Your task to perform on an android device: Search for a nightstand on IKEA. Image 0: 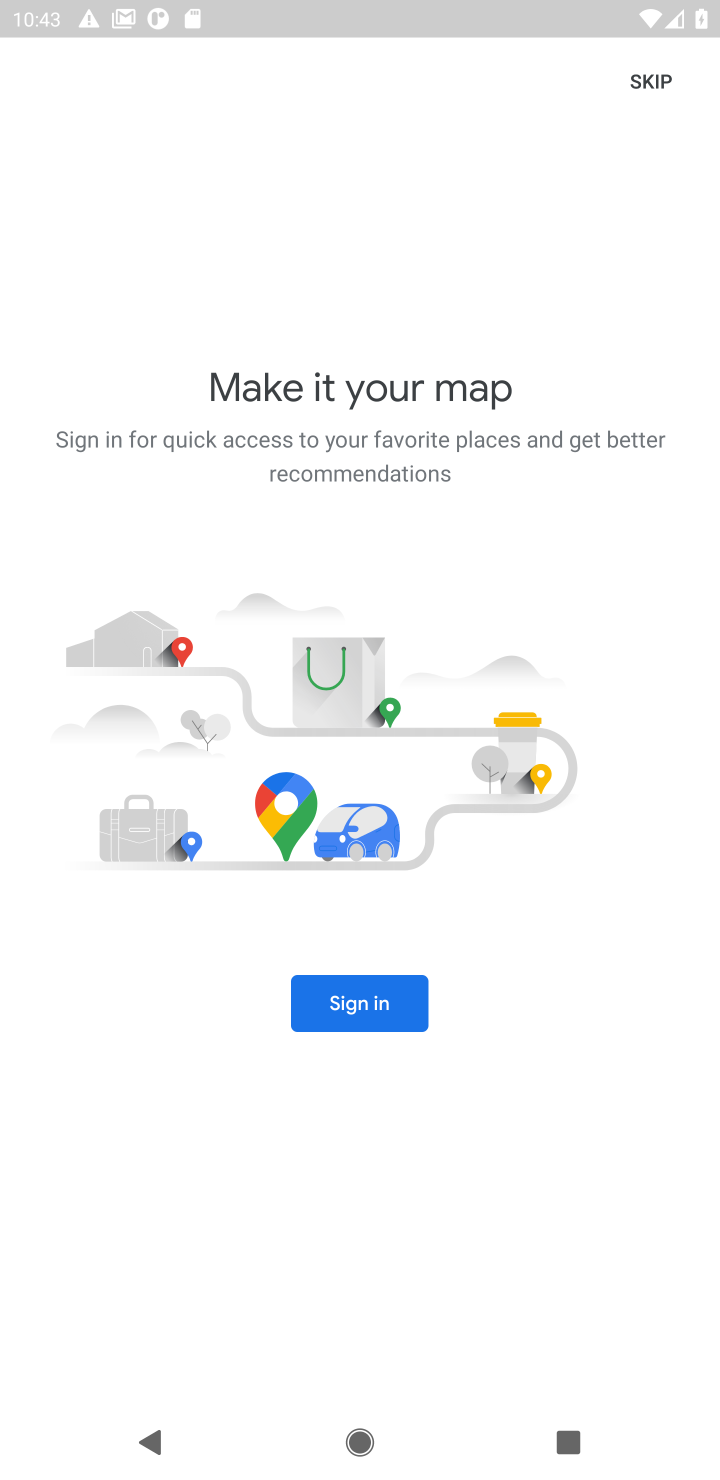
Step 0: press home button
Your task to perform on an android device: Search for a nightstand on IKEA. Image 1: 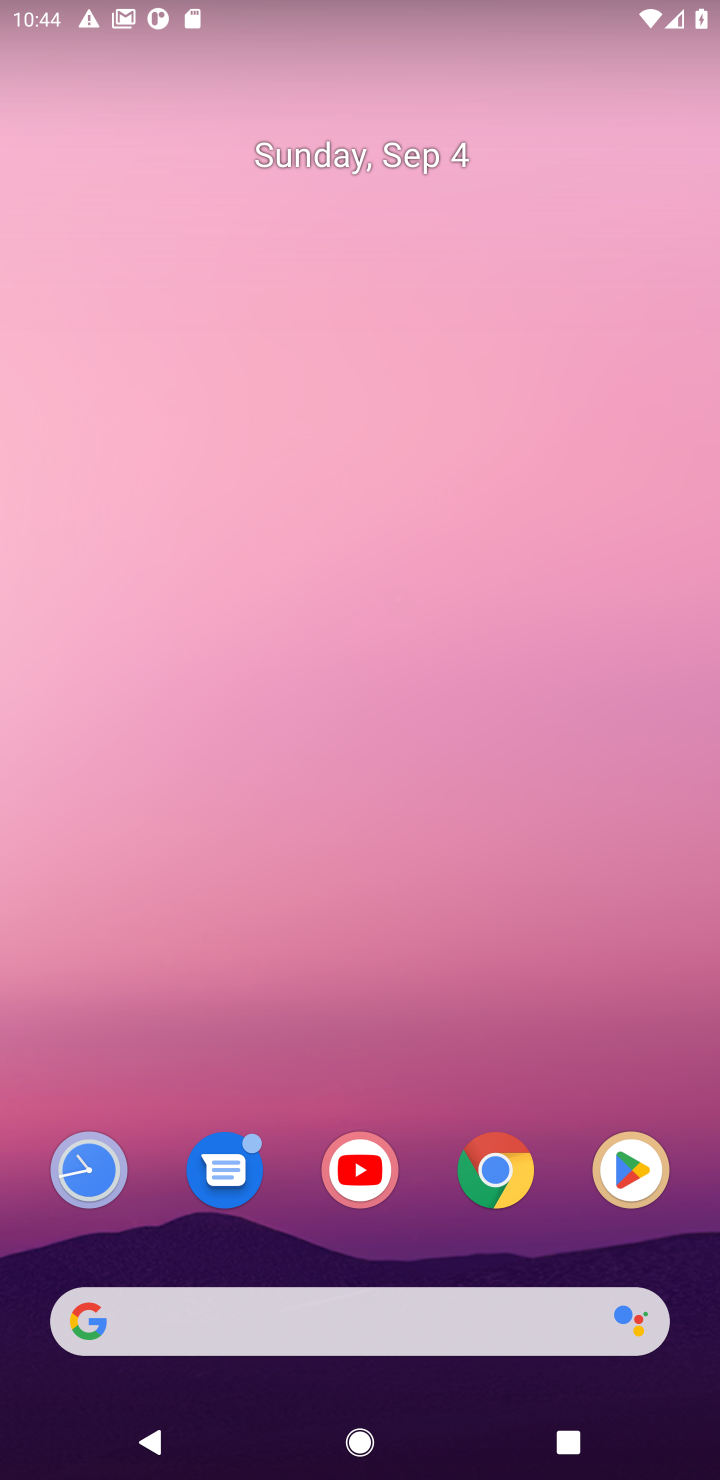
Step 1: drag from (352, 1060) to (200, 131)
Your task to perform on an android device: Search for a nightstand on IKEA. Image 2: 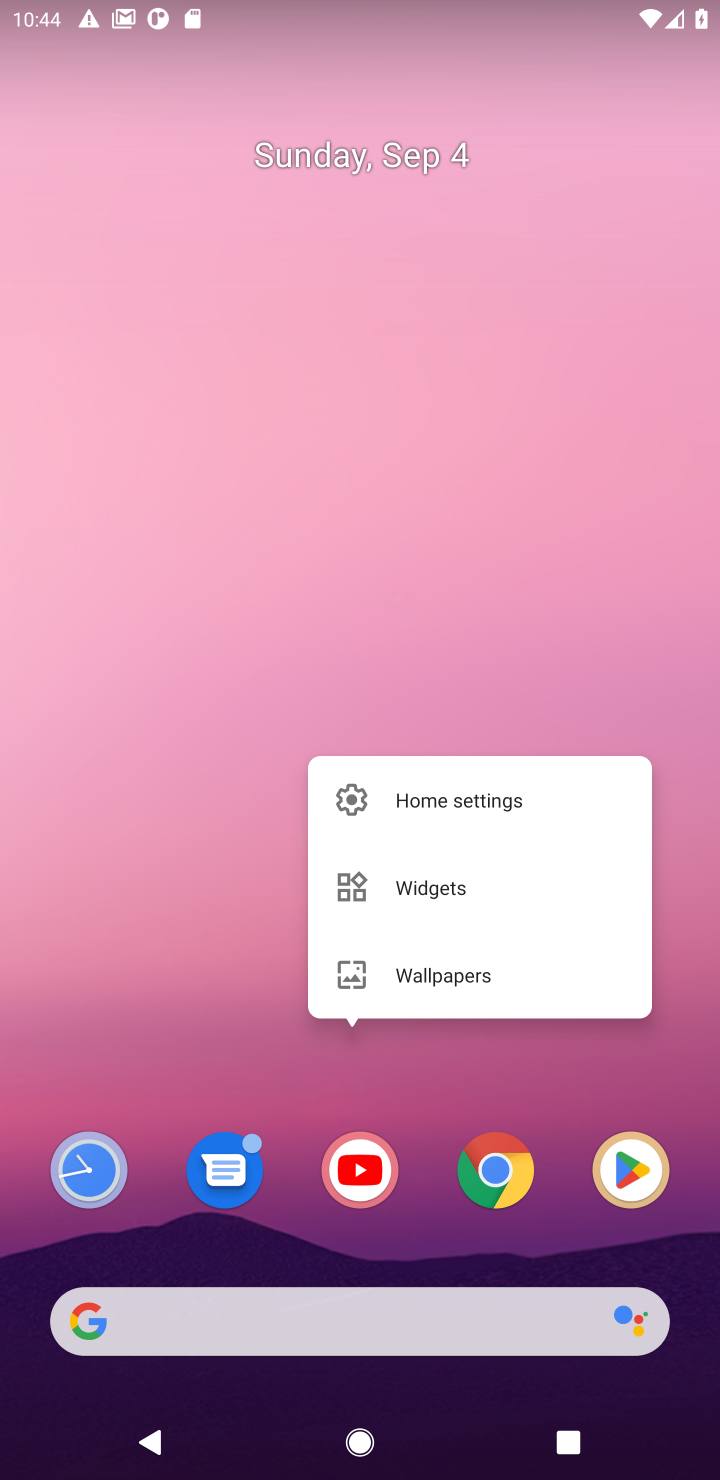
Step 2: click (366, 1097)
Your task to perform on an android device: Search for a nightstand on IKEA. Image 3: 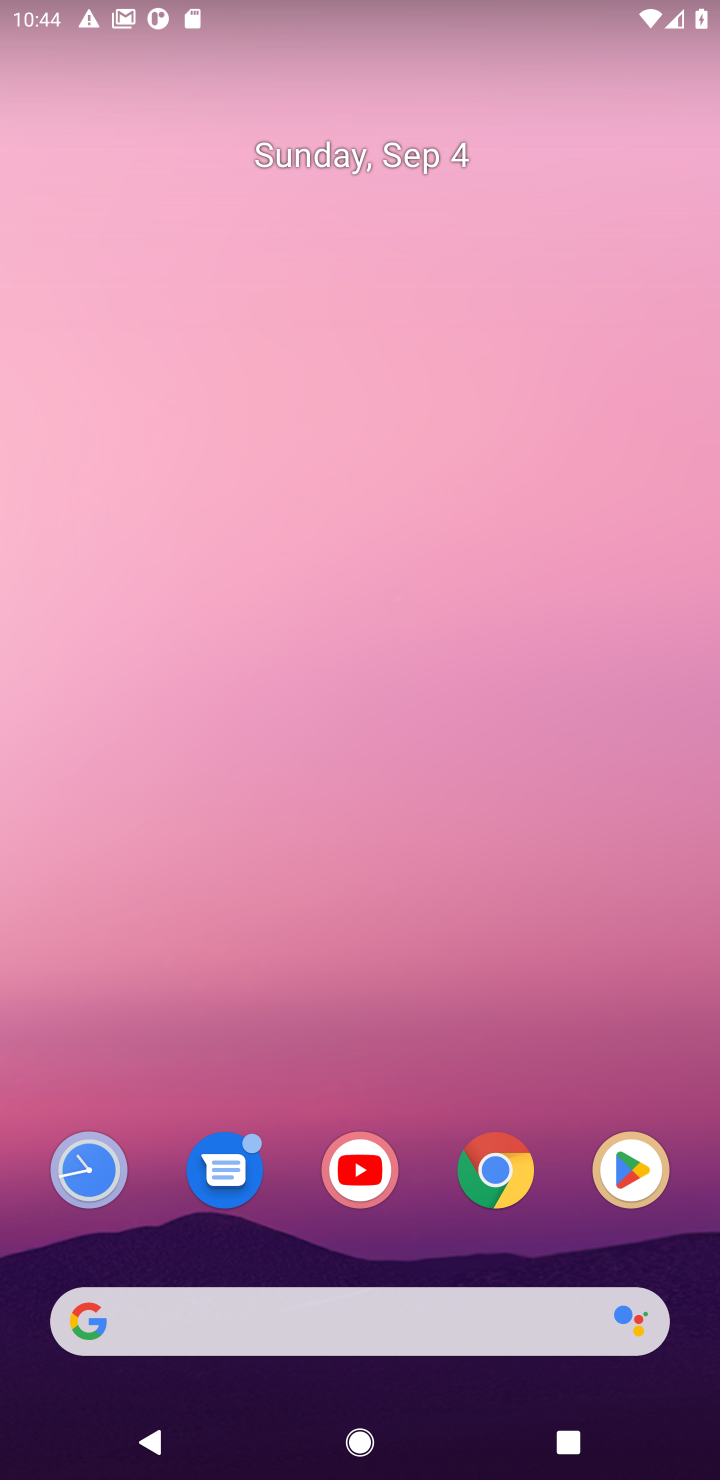
Step 3: click (497, 1178)
Your task to perform on an android device: Search for a nightstand on IKEA. Image 4: 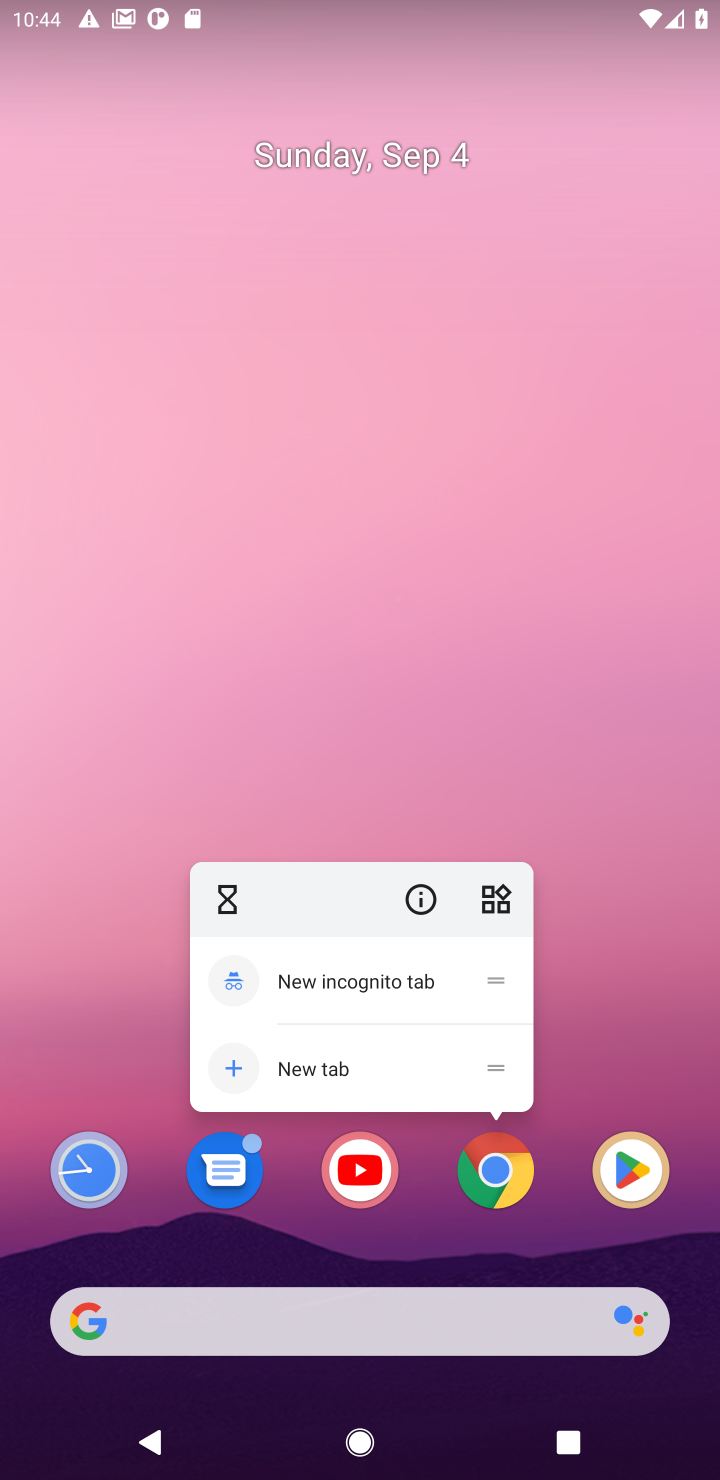
Step 4: click (531, 1136)
Your task to perform on an android device: Search for a nightstand on IKEA. Image 5: 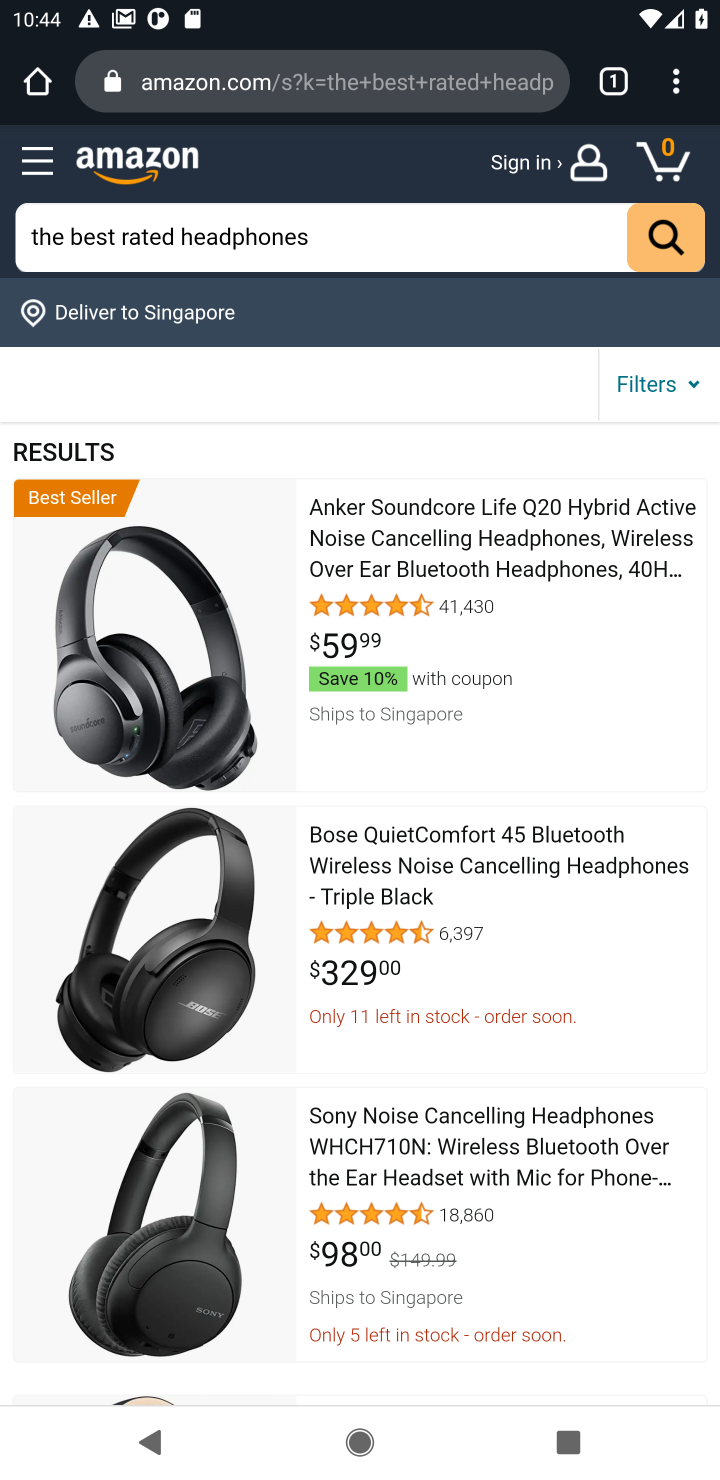
Step 5: click (419, 80)
Your task to perform on an android device: Search for a nightstand on IKEA. Image 6: 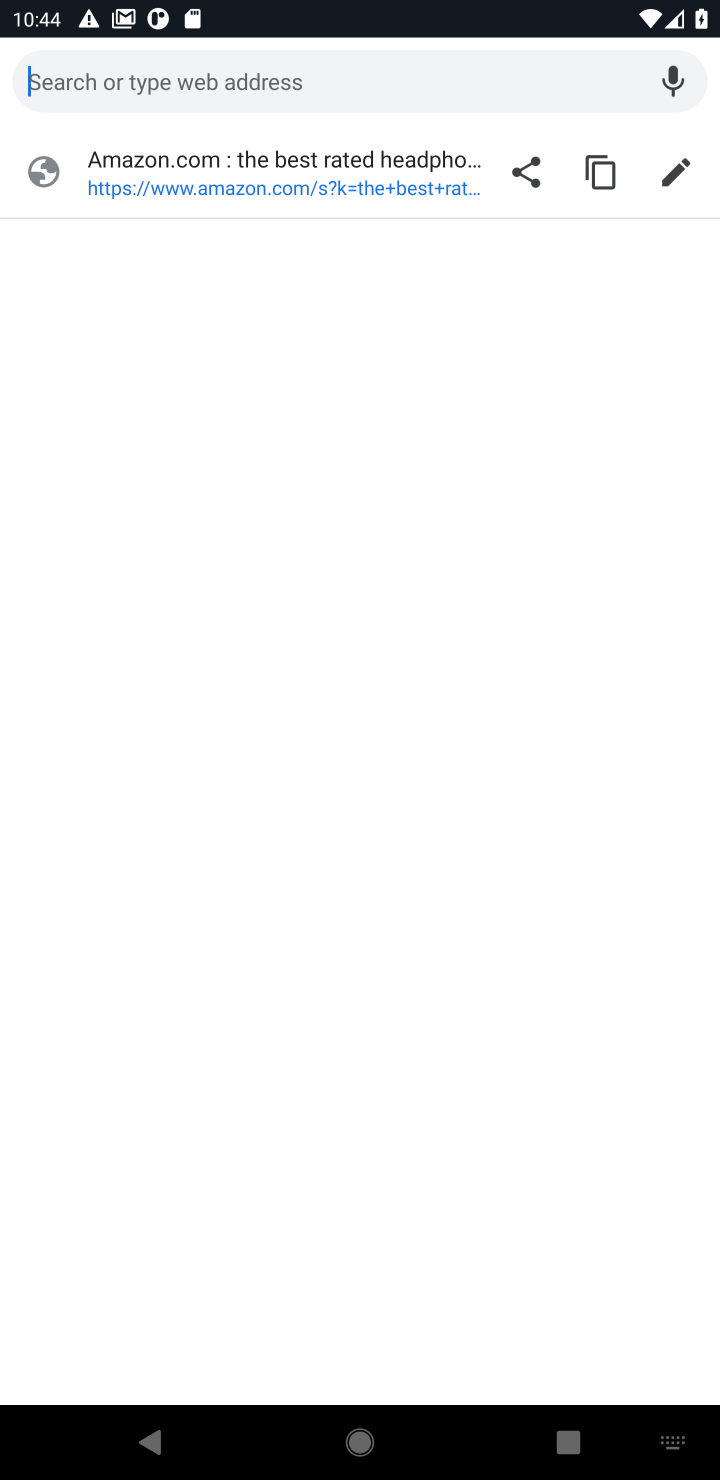
Step 6: type "IKEA."
Your task to perform on an android device: Search for a nightstand on IKEA. Image 7: 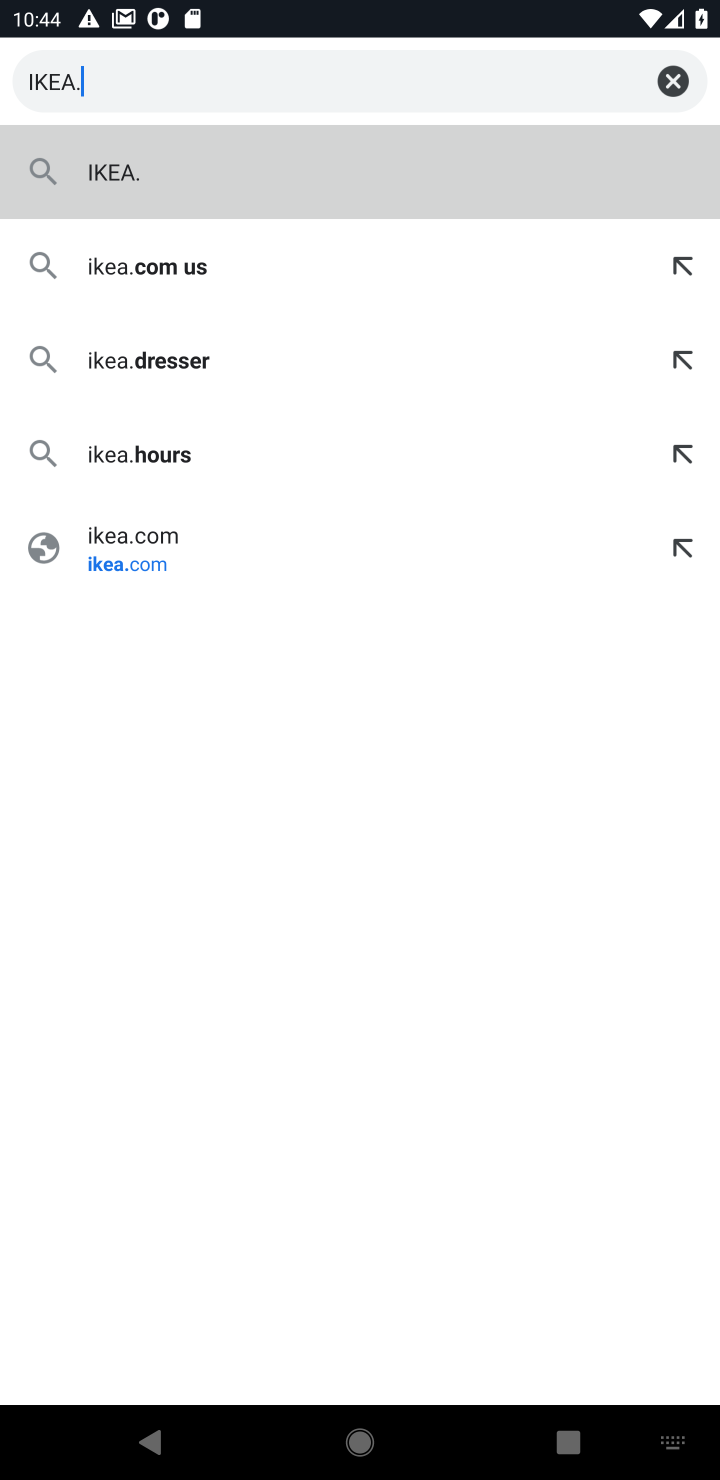
Step 7: click (153, 201)
Your task to perform on an android device: Search for a nightstand on IKEA. Image 8: 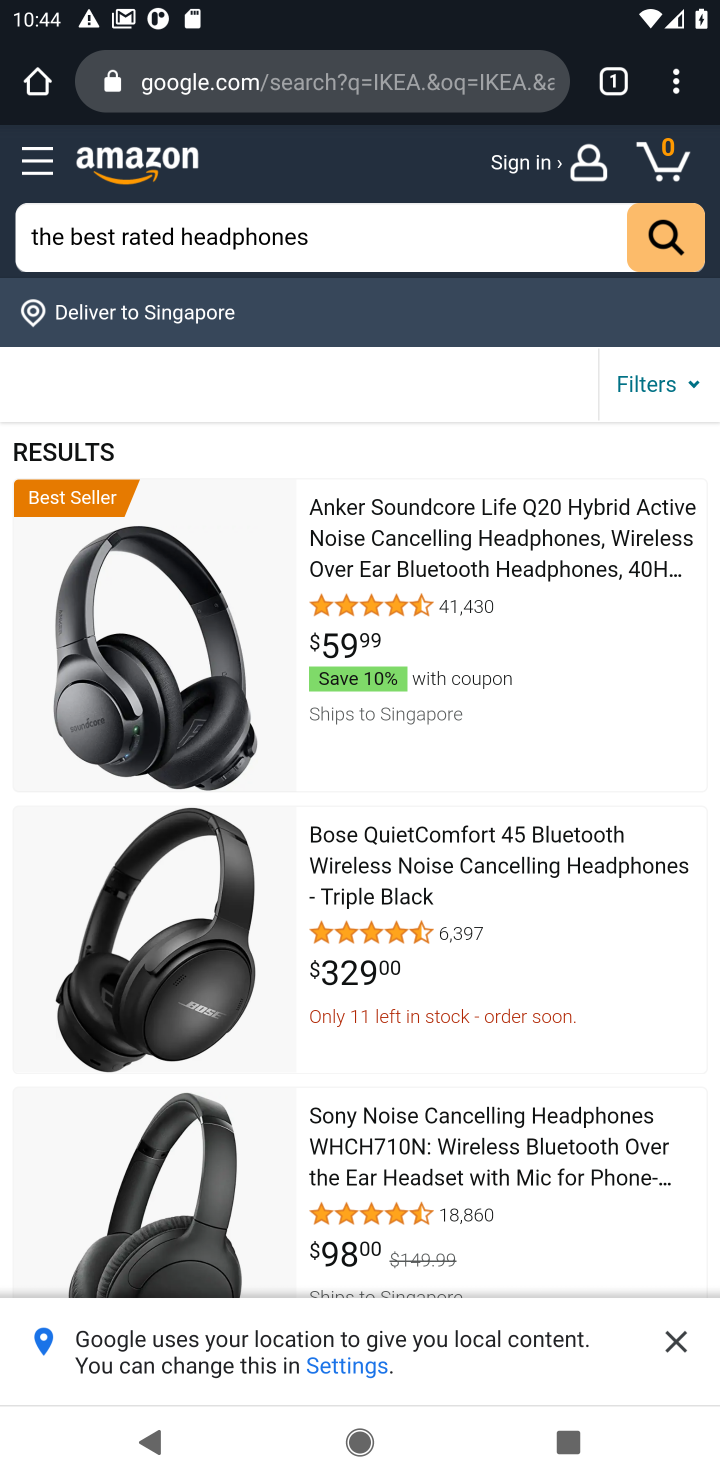
Step 8: click (268, 75)
Your task to perform on an android device: Search for a nightstand on IKEA. Image 9: 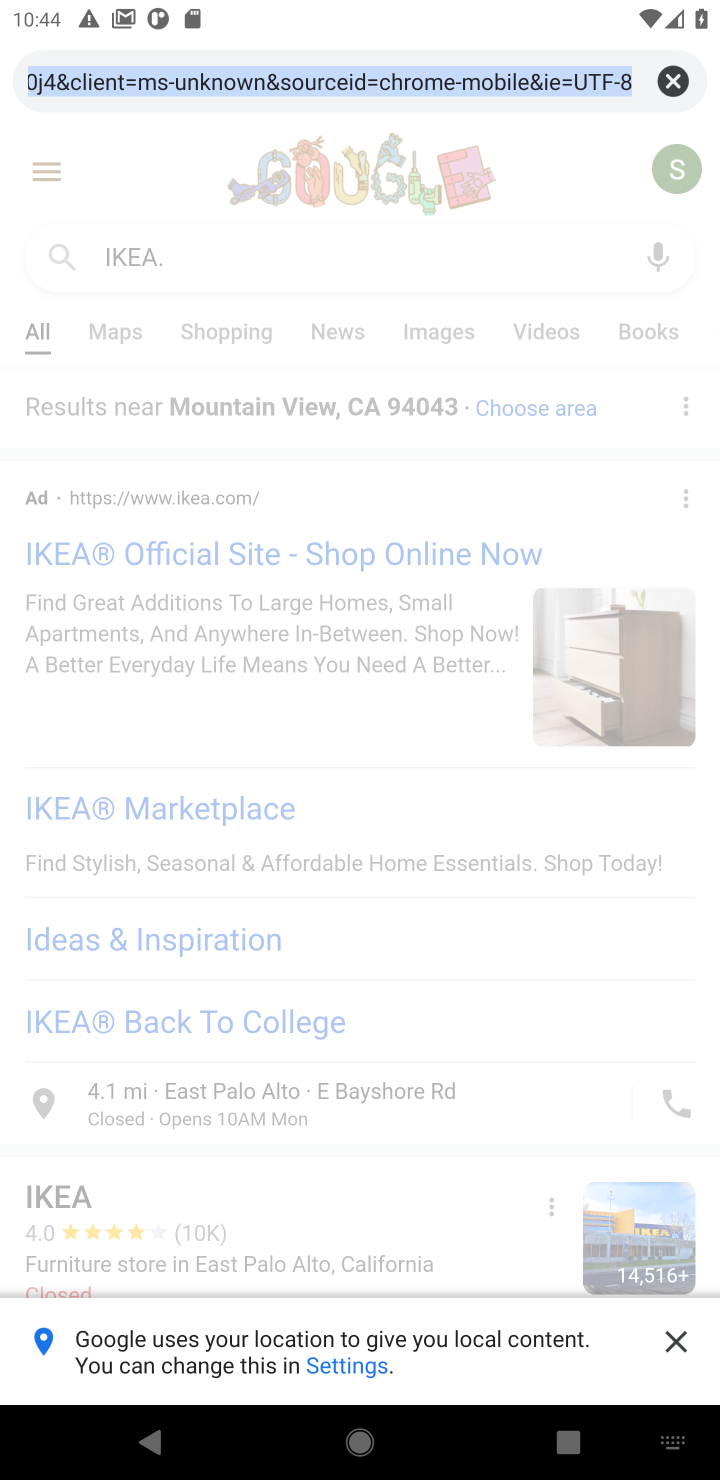
Step 9: click (105, 564)
Your task to perform on an android device: Search for a nightstand on IKEA. Image 10: 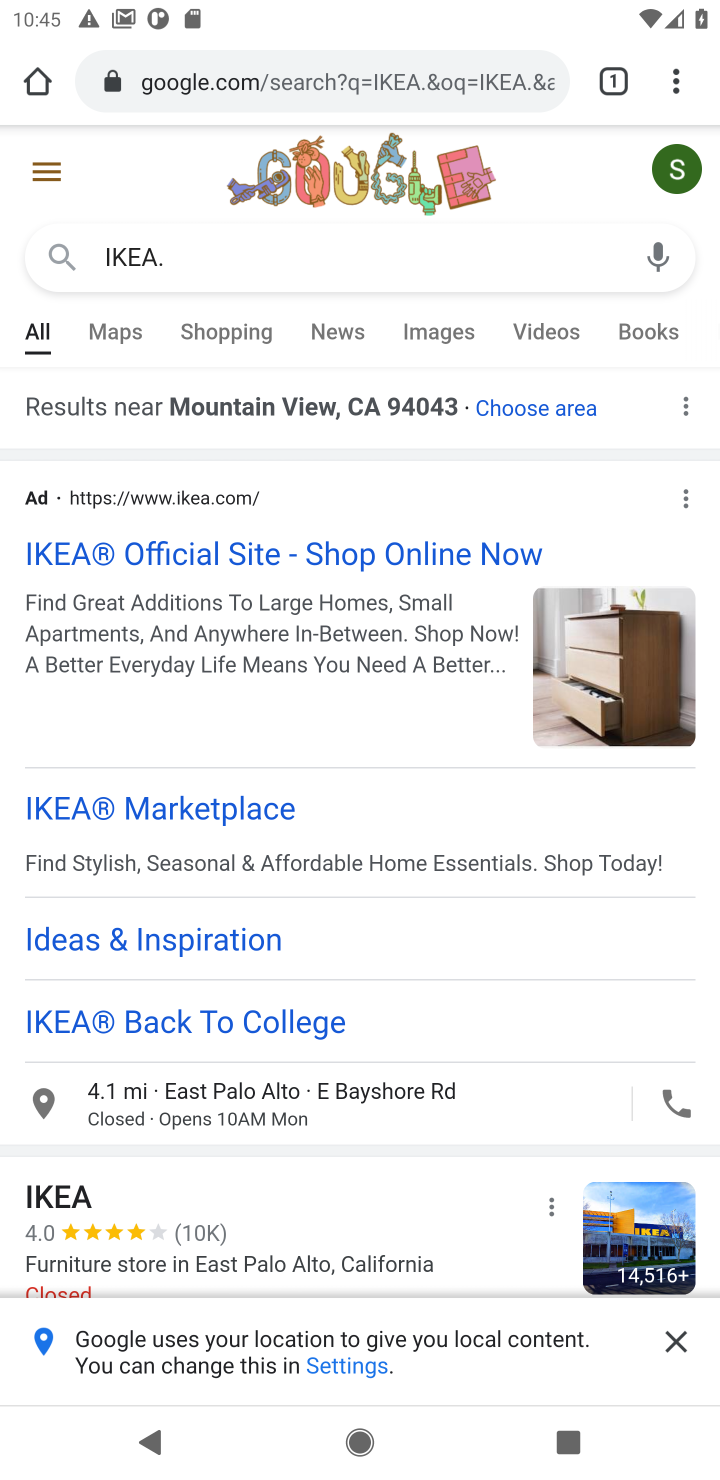
Step 10: click (107, 562)
Your task to perform on an android device: Search for a nightstand on IKEA. Image 11: 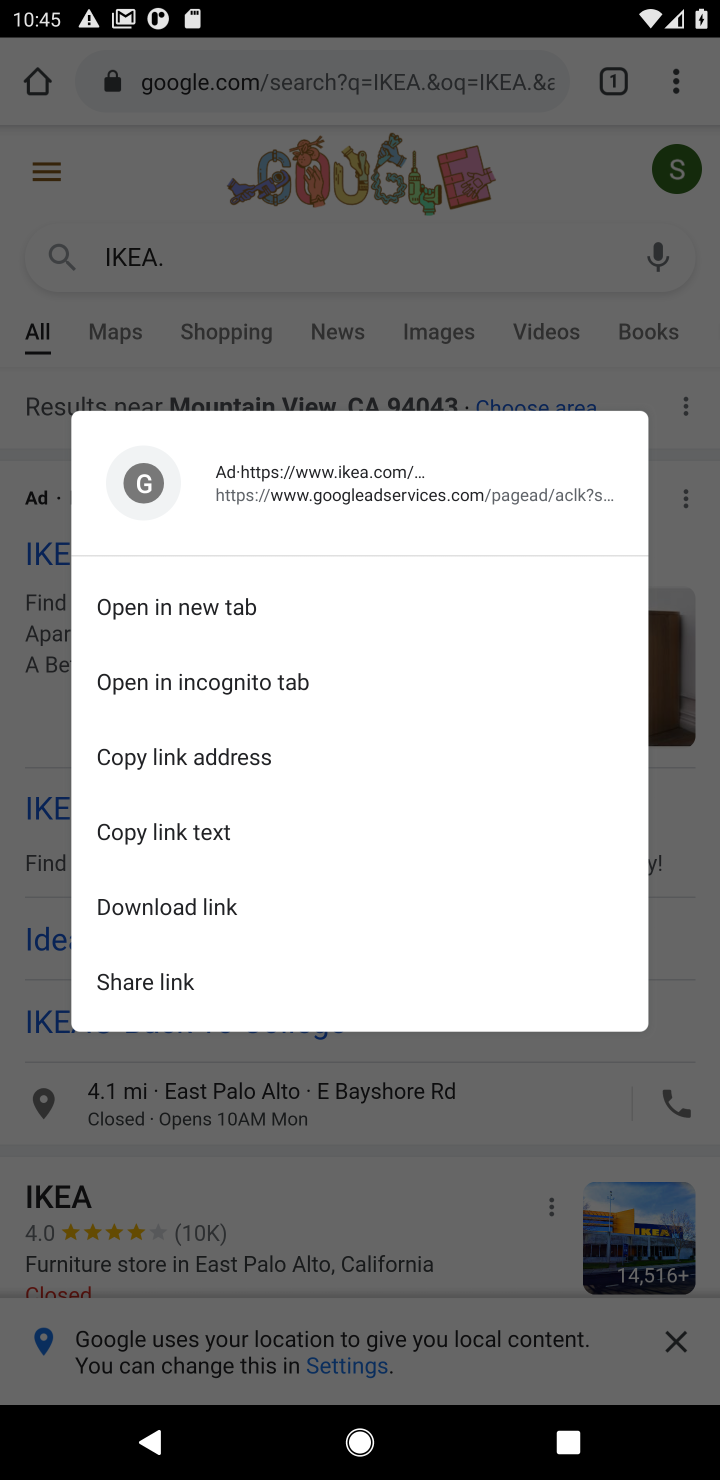
Step 11: click (208, 1126)
Your task to perform on an android device: Search for a nightstand on IKEA. Image 12: 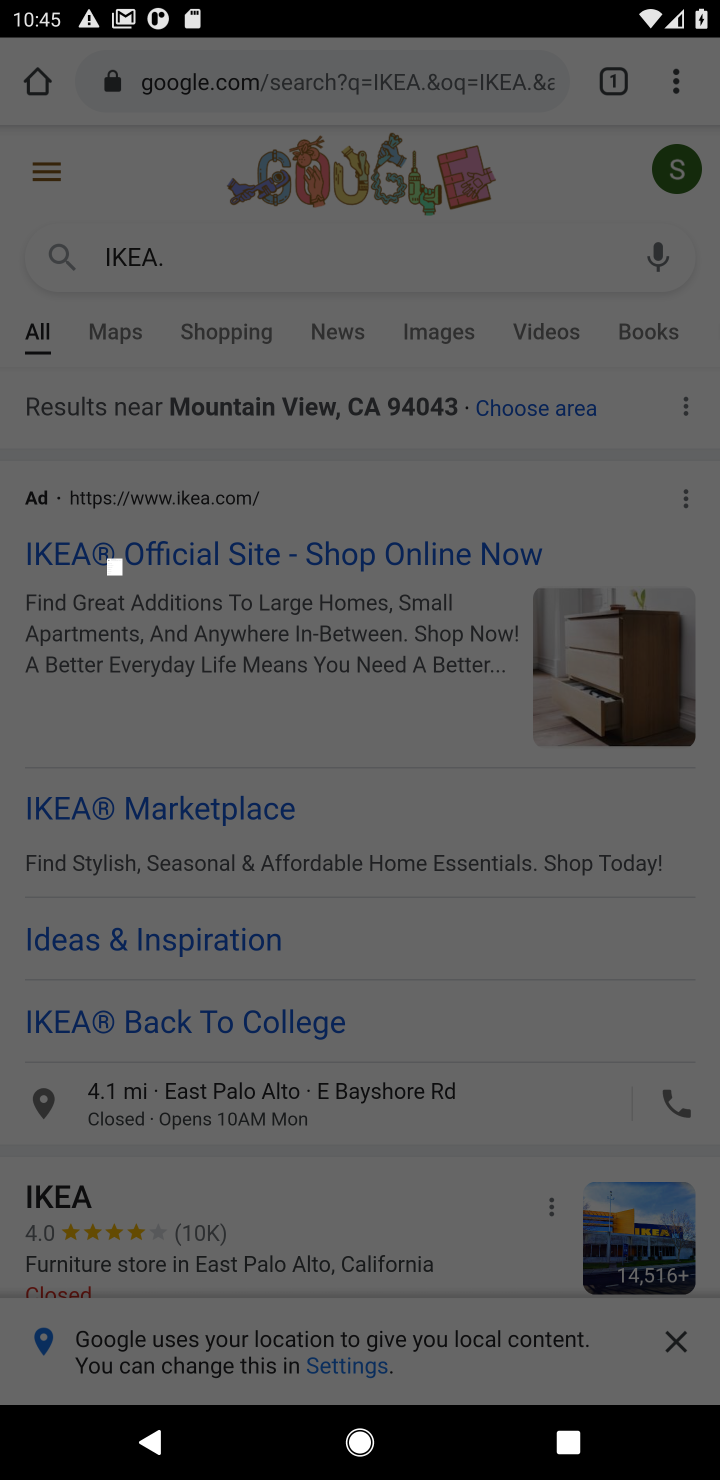
Step 12: click (172, 562)
Your task to perform on an android device: Search for a nightstand on IKEA. Image 13: 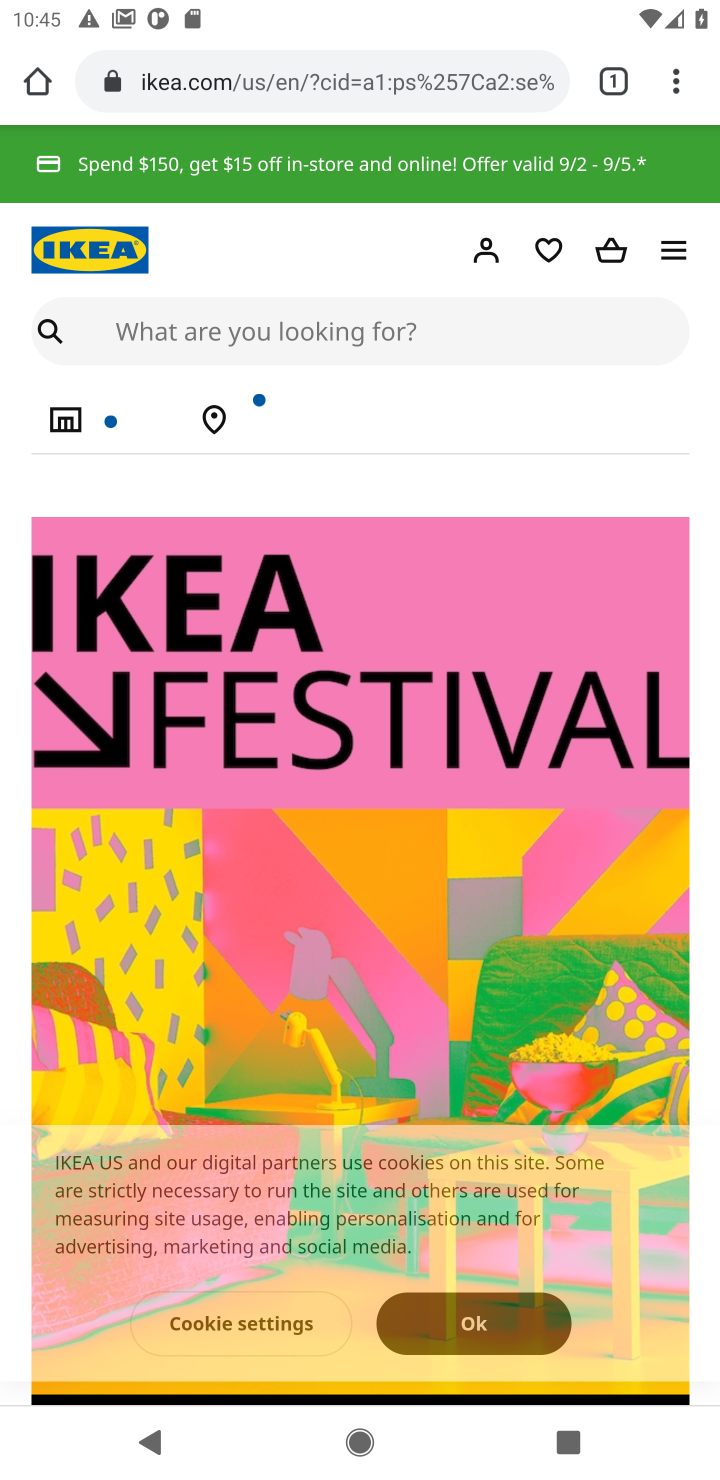
Step 13: click (196, 305)
Your task to perform on an android device: Search for a nightstand on IKEA. Image 14: 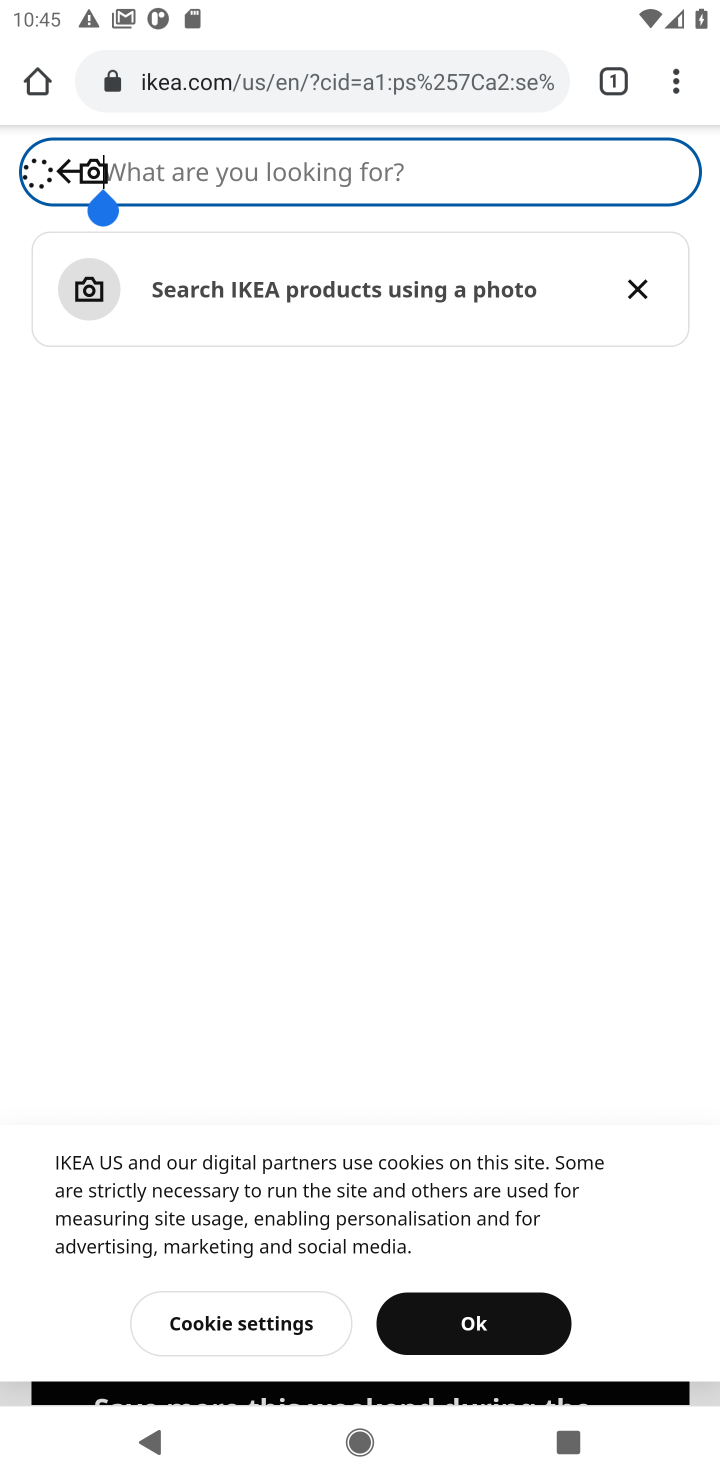
Step 14: type "nightstand"
Your task to perform on an android device: Search for a nightstand on IKEA. Image 15: 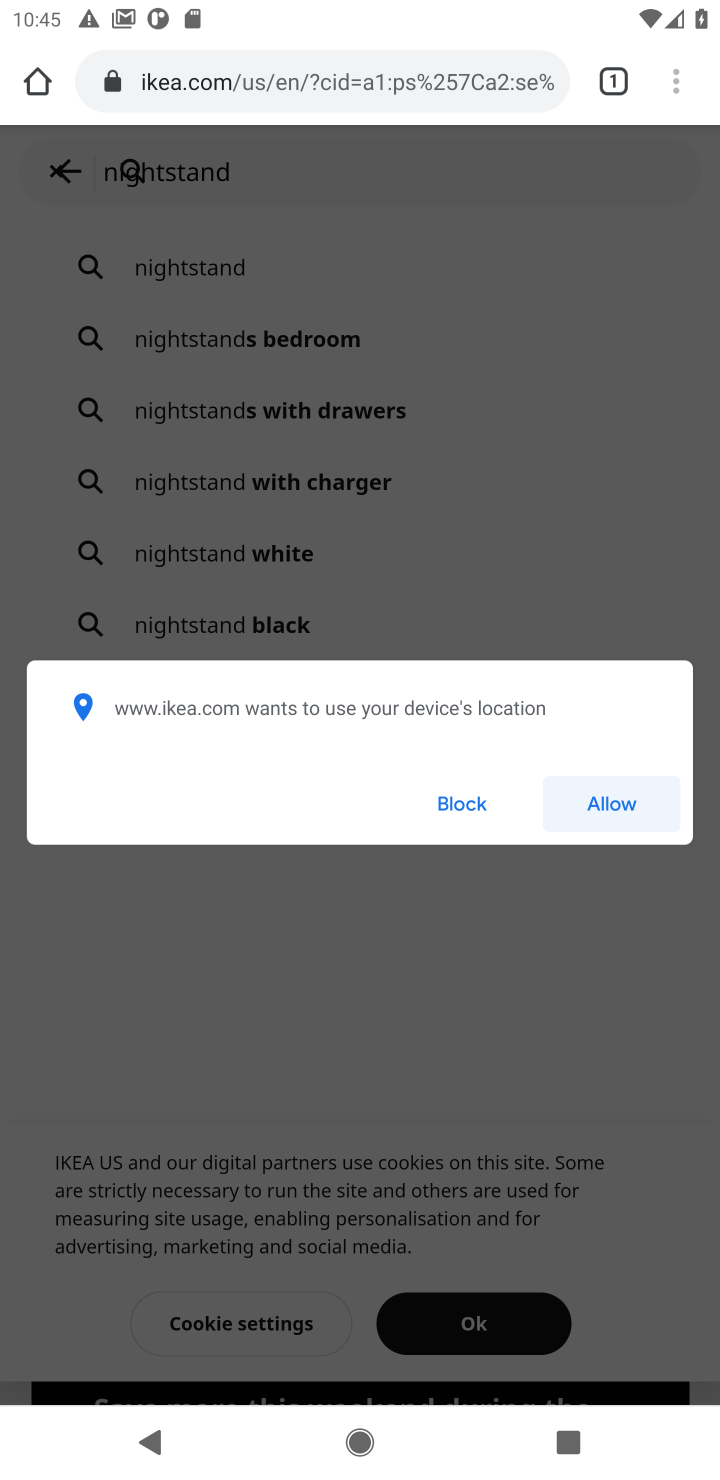
Step 15: click (447, 815)
Your task to perform on an android device: Search for a nightstand on IKEA. Image 16: 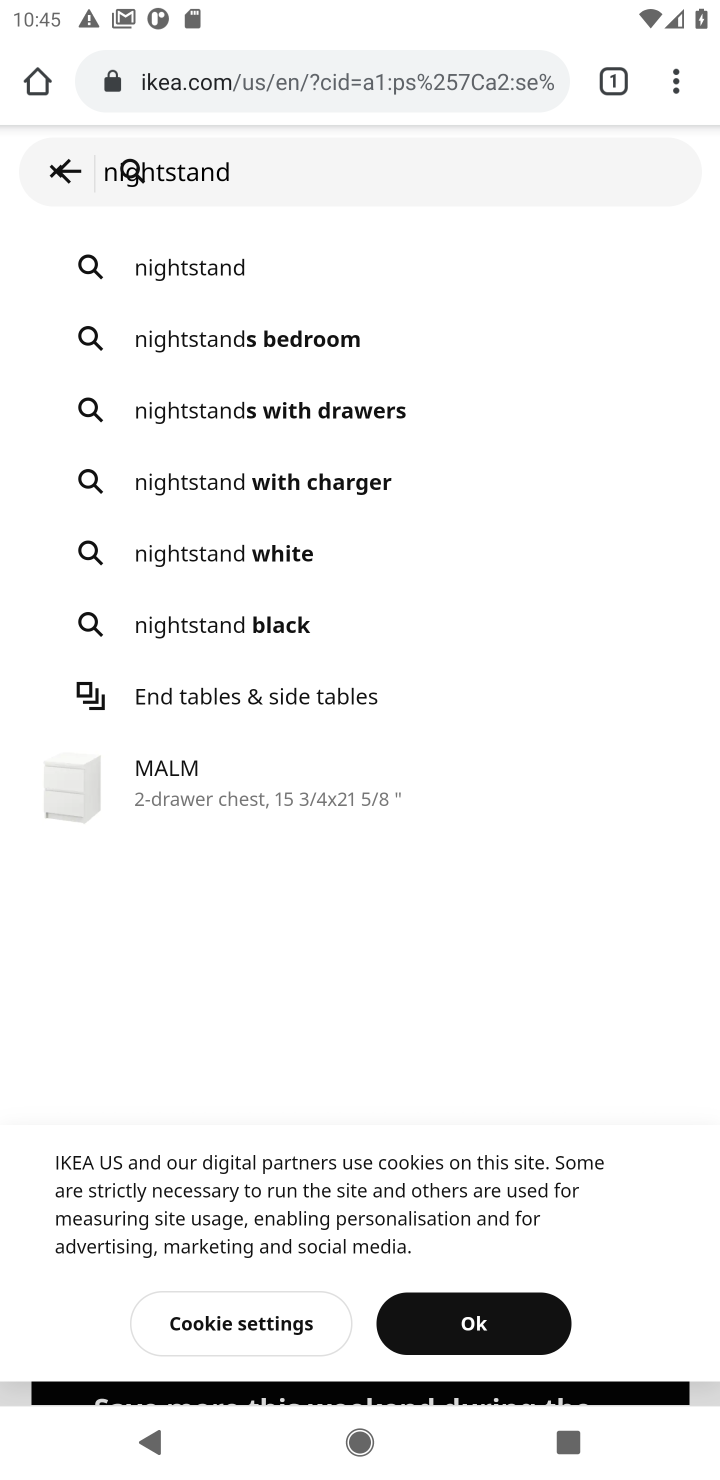
Step 16: click (222, 288)
Your task to perform on an android device: Search for a nightstand on IKEA. Image 17: 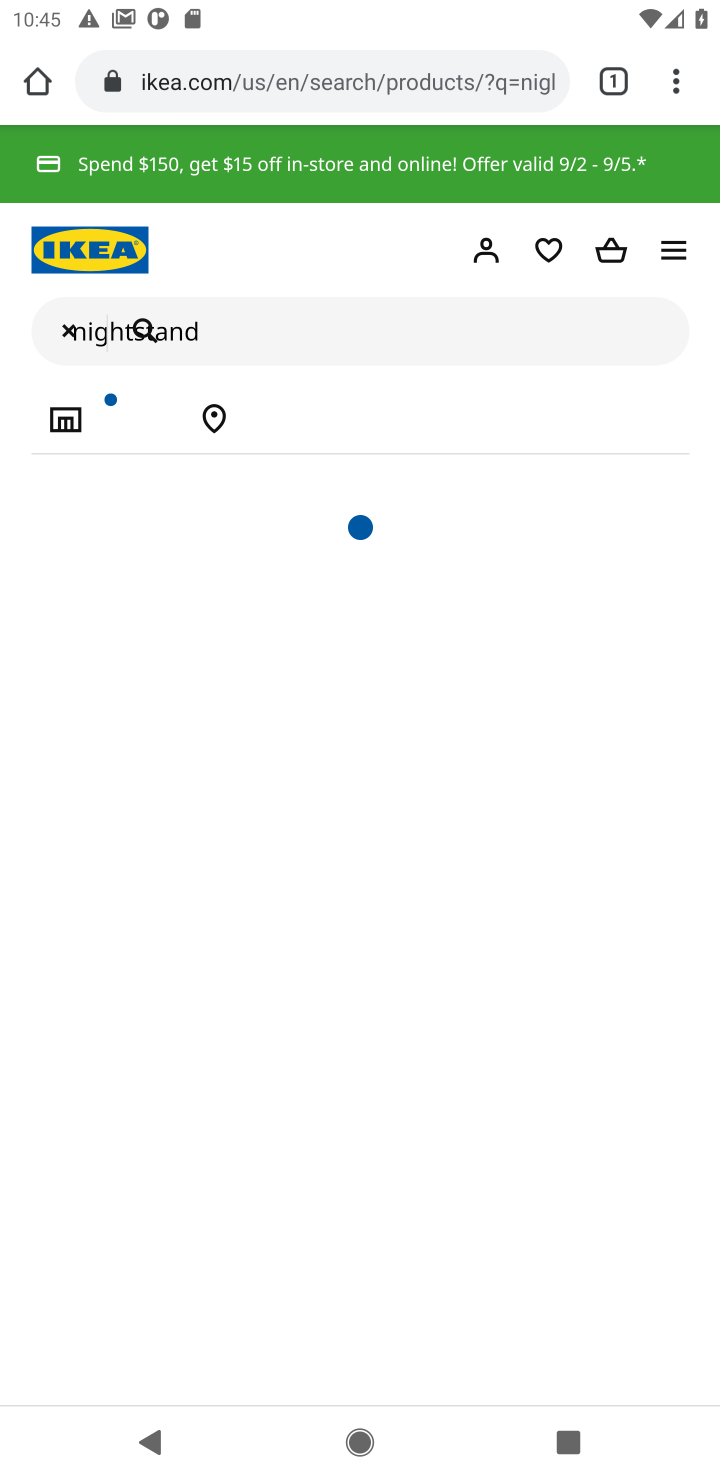
Step 17: task complete